Your task to perform on an android device: What is the recent news? Image 0: 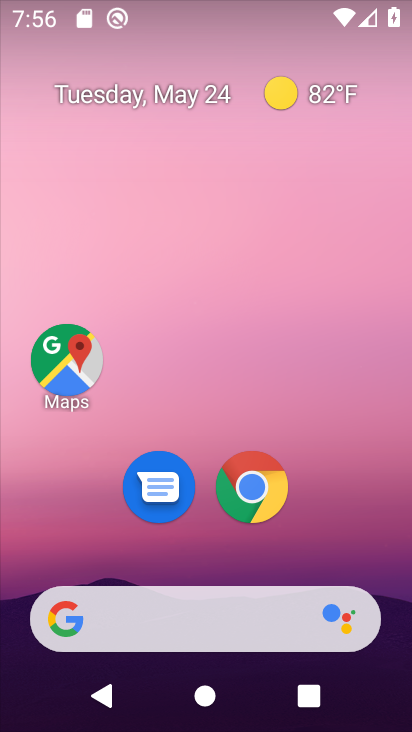
Step 0: drag from (366, 534) to (363, 105)
Your task to perform on an android device: What is the recent news? Image 1: 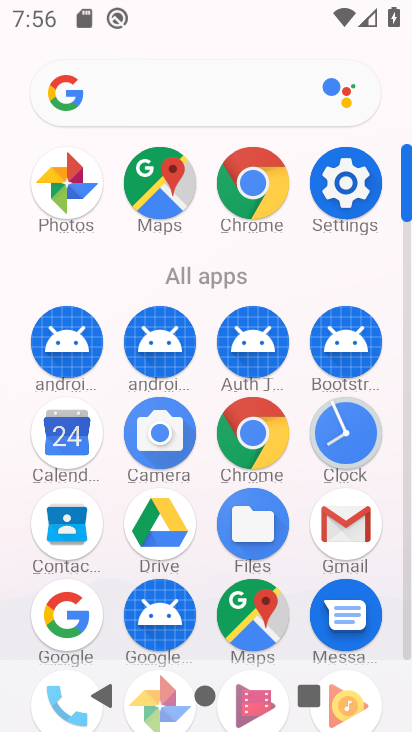
Step 1: click (244, 446)
Your task to perform on an android device: What is the recent news? Image 2: 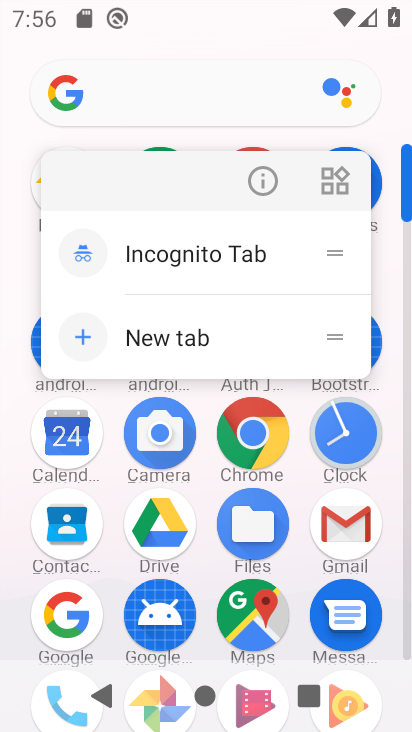
Step 2: click (242, 449)
Your task to perform on an android device: What is the recent news? Image 3: 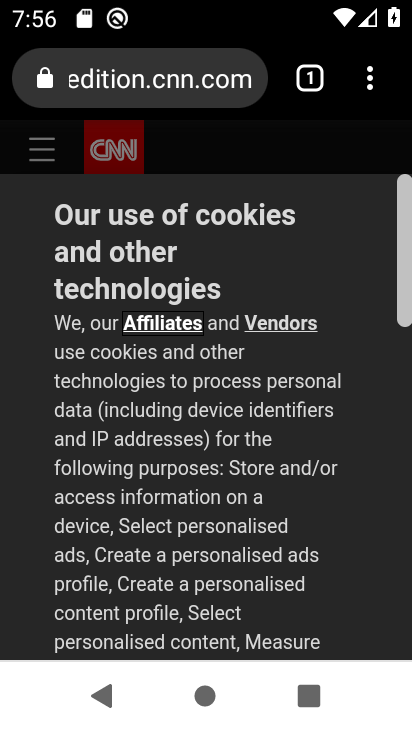
Step 3: click (202, 91)
Your task to perform on an android device: What is the recent news? Image 4: 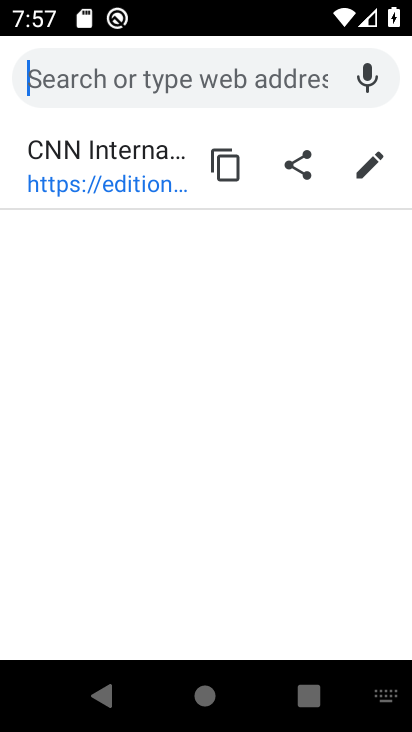
Step 4: type "what is the recent news"
Your task to perform on an android device: What is the recent news? Image 5: 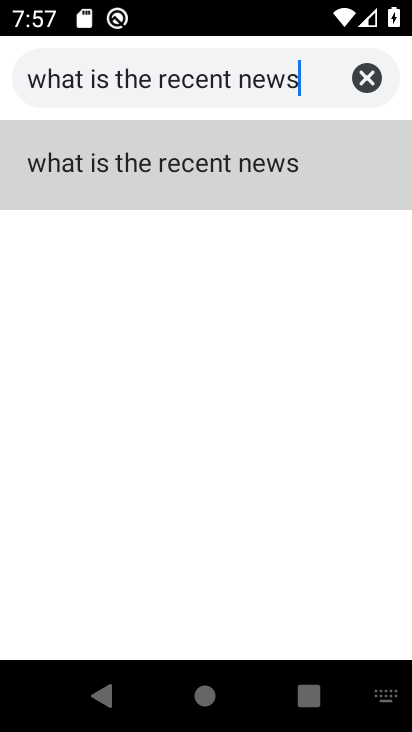
Step 5: click (187, 163)
Your task to perform on an android device: What is the recent news? Image 6: 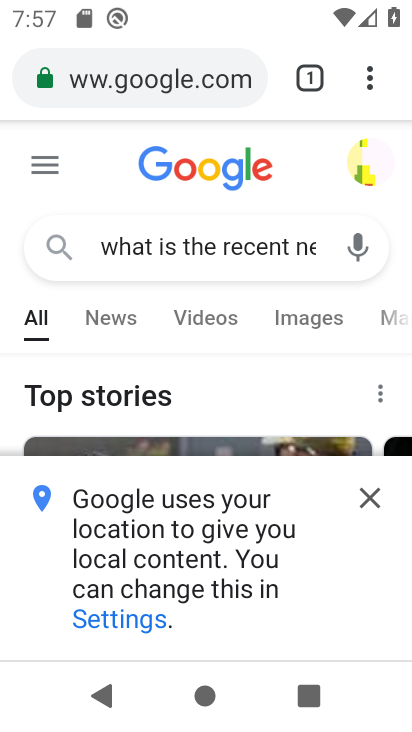
Step 6: click (368, 499)
Your task to perform on an android device: What is the recent news? Image 7: 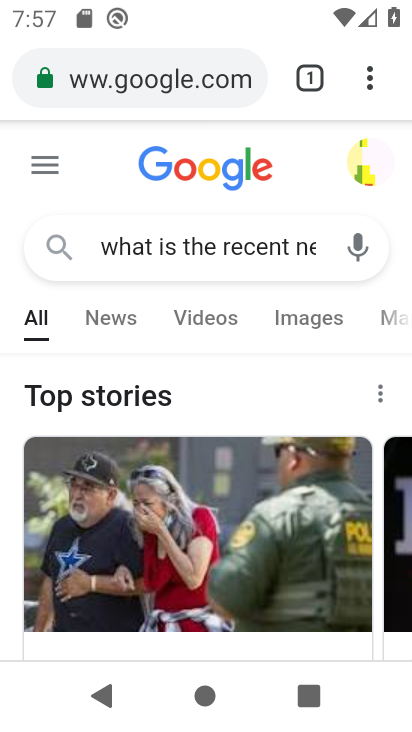
Step 7: task complete